Your task to perform on an android device: Search for seafood restaurants on Google Maps Image 0: 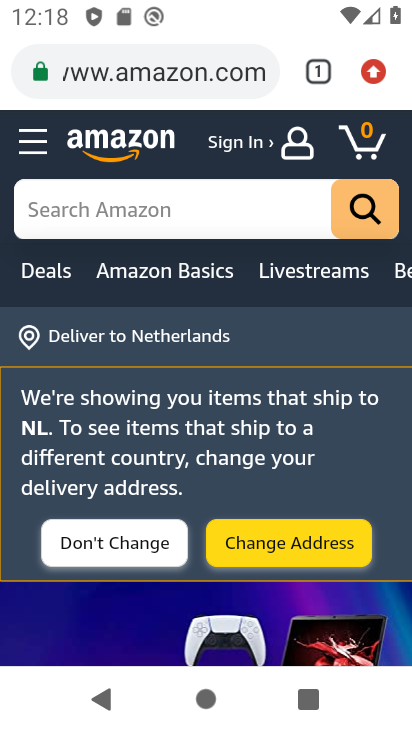
Step 0: press home button
Your task to perform on an android device: Search for seafood restaurants on Google Maps Image 1: 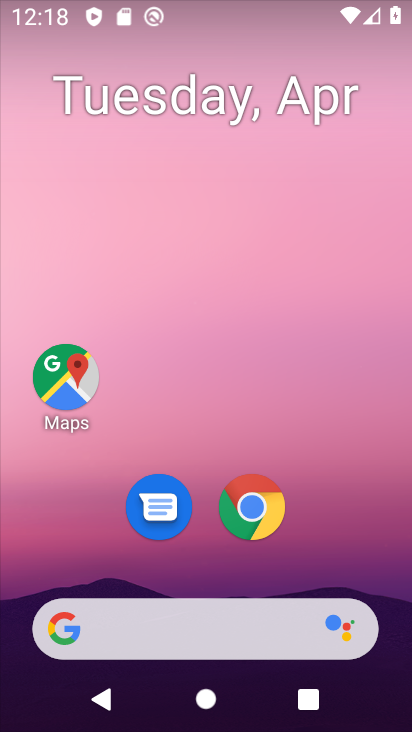
Step 1: click (74, 366)
Your task to perform on an android device: Search for seafood restaurants on Google Maps Image 2: 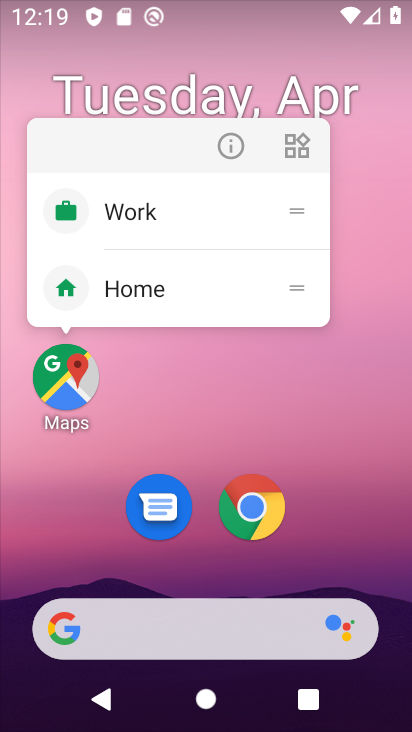
Step 2: click (73, 392)
Your task to perform on an android device: Search for seafood restaurants on Google Maps Image 3: 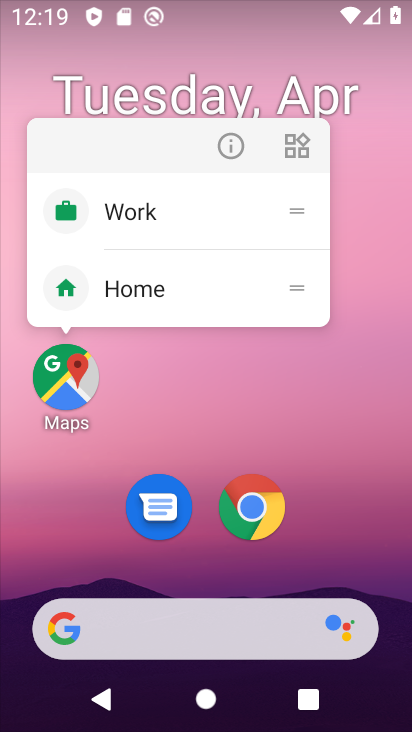
Step 3: click (63, 385)
Your task to perform on an android device: Search for seafood restaurants on Google Maps Image 4: 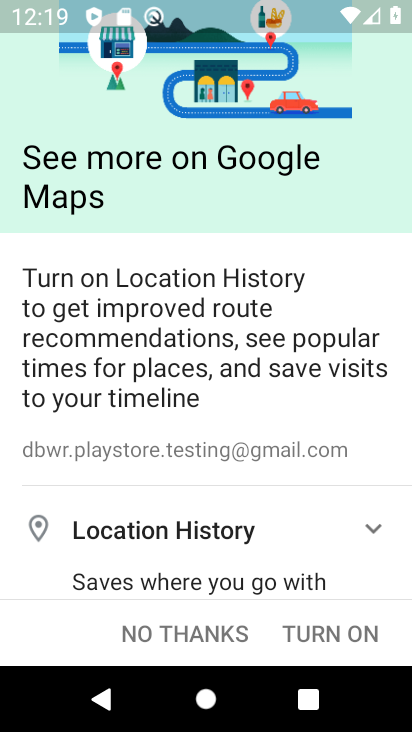
Step 4: click (294, 627)
Your task to perform on an android device: Search for seafood restaurants on Google Maps Image 5: 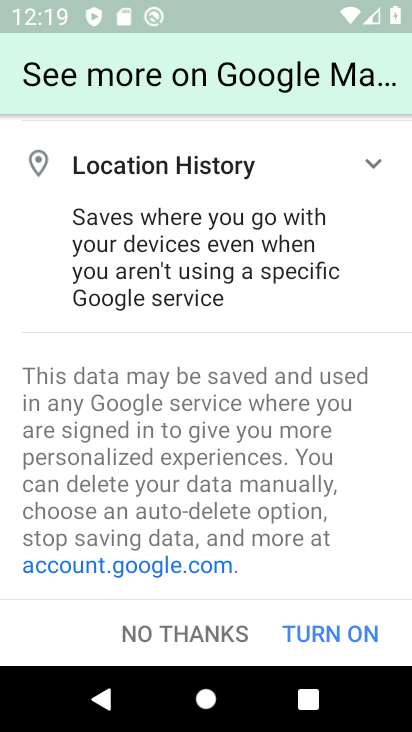
Step 5: click (306, 630)
Your task to perform on an android device: Search for seafood restaurants on Google Maps Image 6: 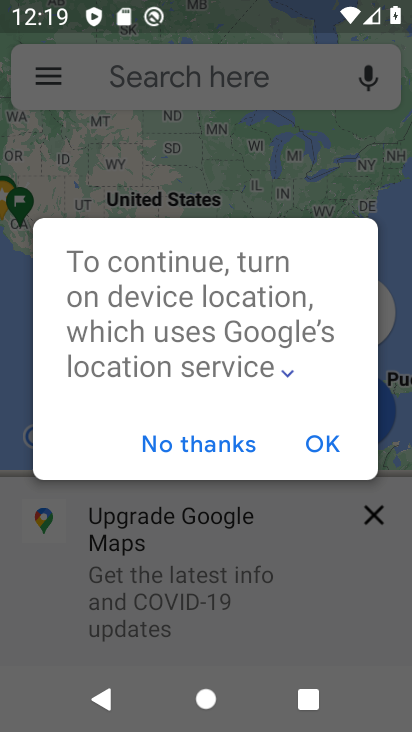
Step 6: click (304, 432)
Your task to perform on an android device: Search for seafood restaurants on Google Maps Image 7: 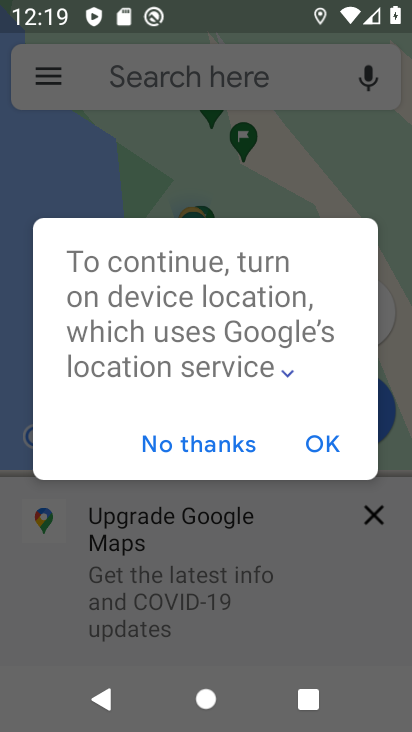
Step 7: click (330, 441)
Your task to perform on an android device: Search for seafood restaurants on Google Maps Image 8: 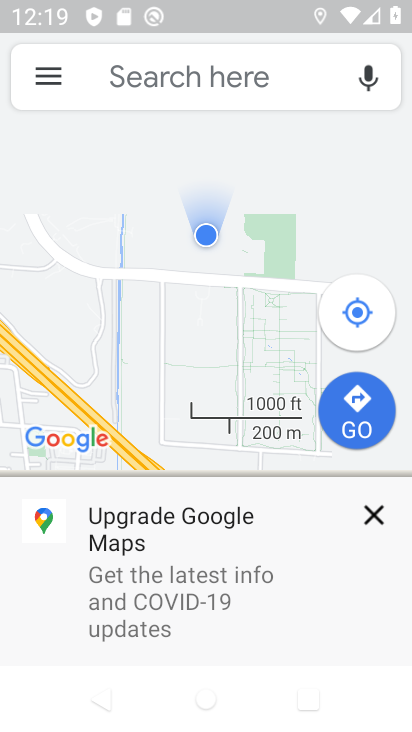
Step 8: click (203, 80)
Your task to perform on an android device: Search for seafood restaurants on Google Maps Image 9: 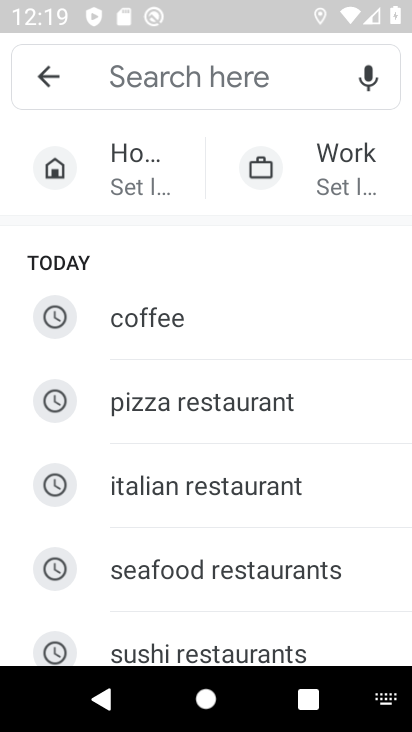
Step 9: click (206, 571)
Your task to perform on an android device: Search for seafood restaurants on Google Maps Image 10: 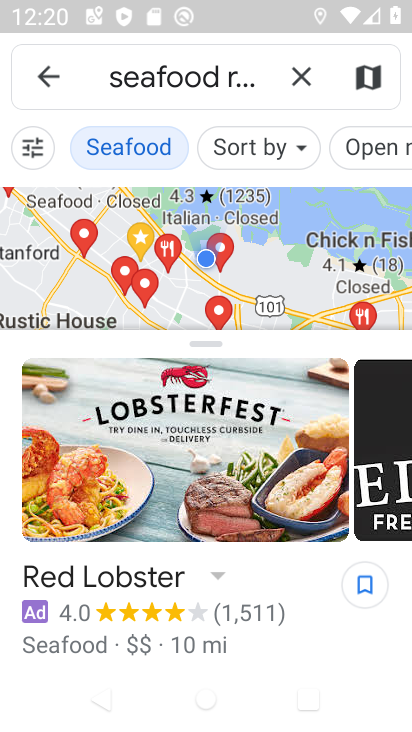
Step 10: task complete